Your task to perform on an android device: uninstall "Google Duo" Image 0: 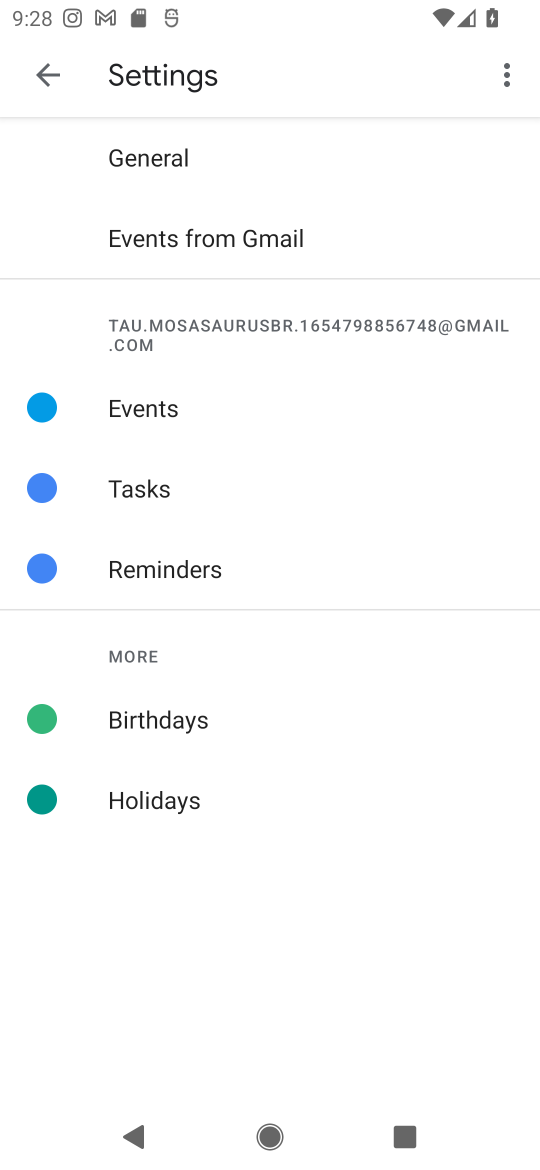
Step 0: press home button
Your task to perform on an android device: uninstall "Google Duo" Image 1: 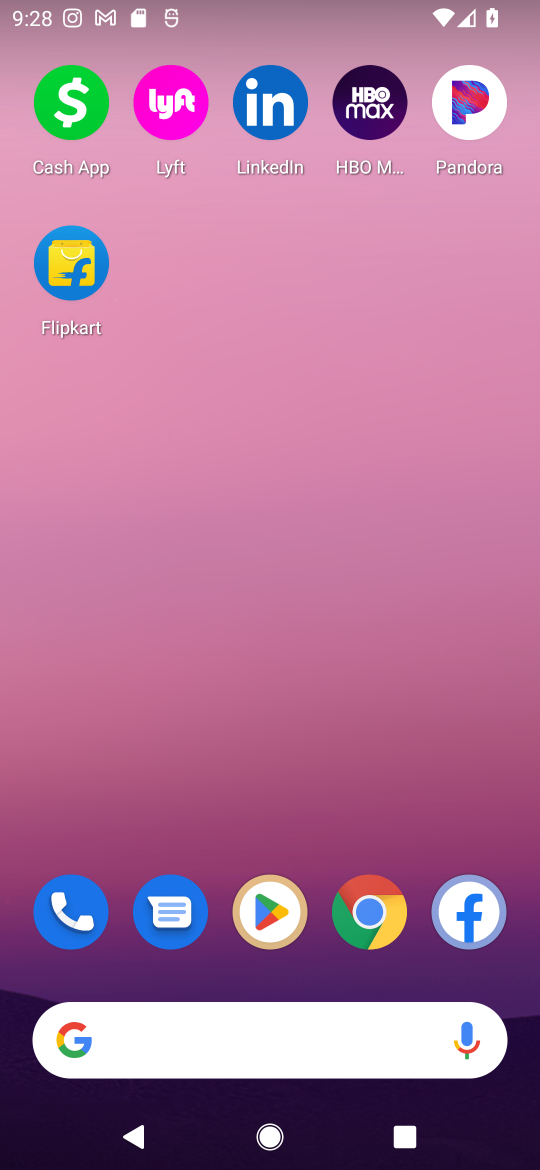
Step 1: click (273, 930)
Your task to perform on an android device: uninstall "Google Duo" Image 2: 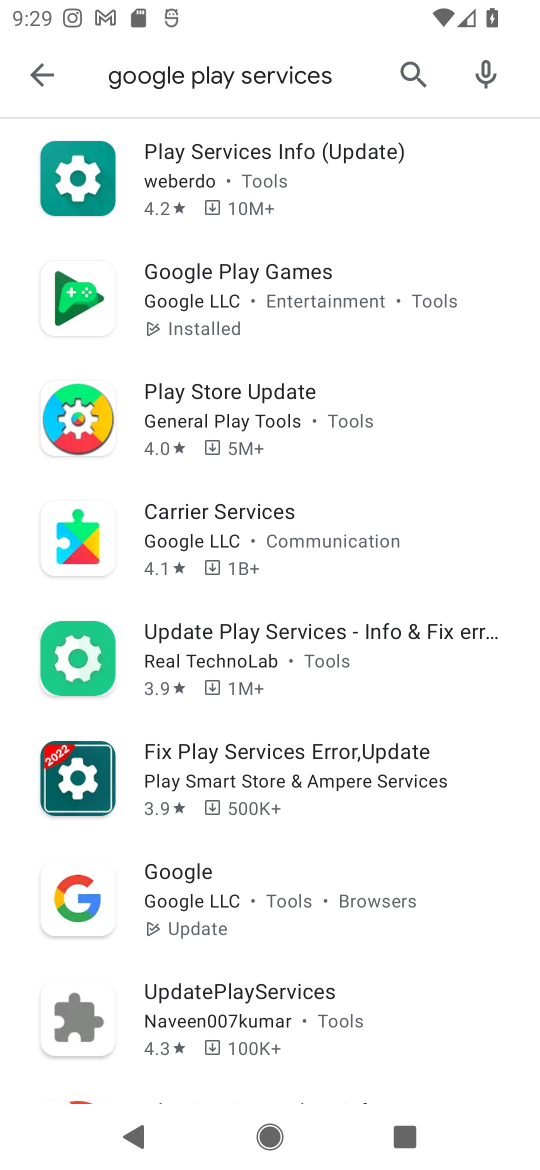
Step 2: click (410, 72)
Your task to perform on an android device: uninstall "Google Duo" Image 3: 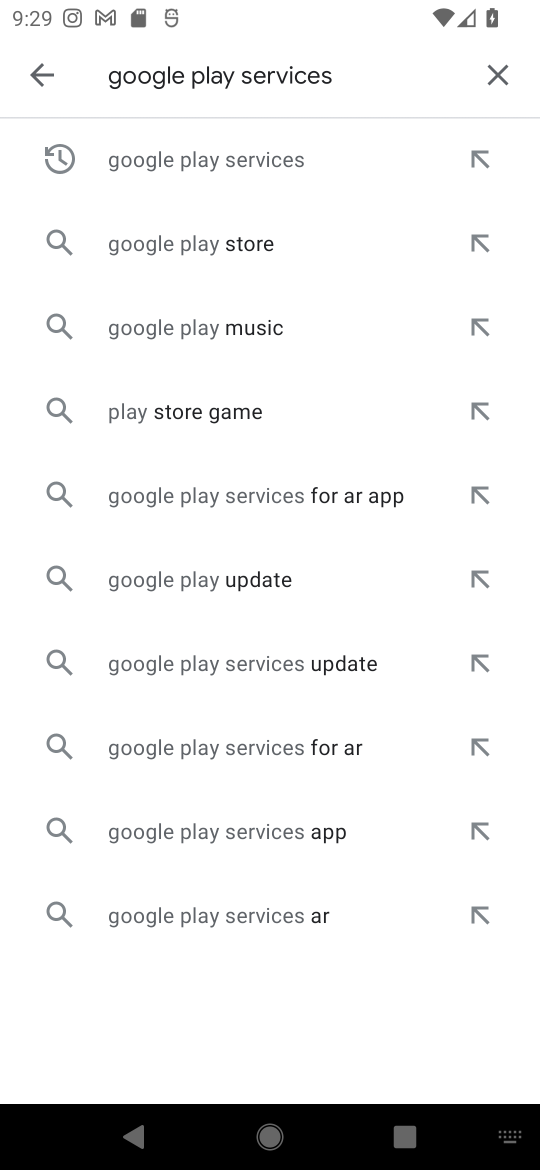
Step 3: click (499, 77)
Your task to perform on an android device: uninstall "Google Duo" Image 4: 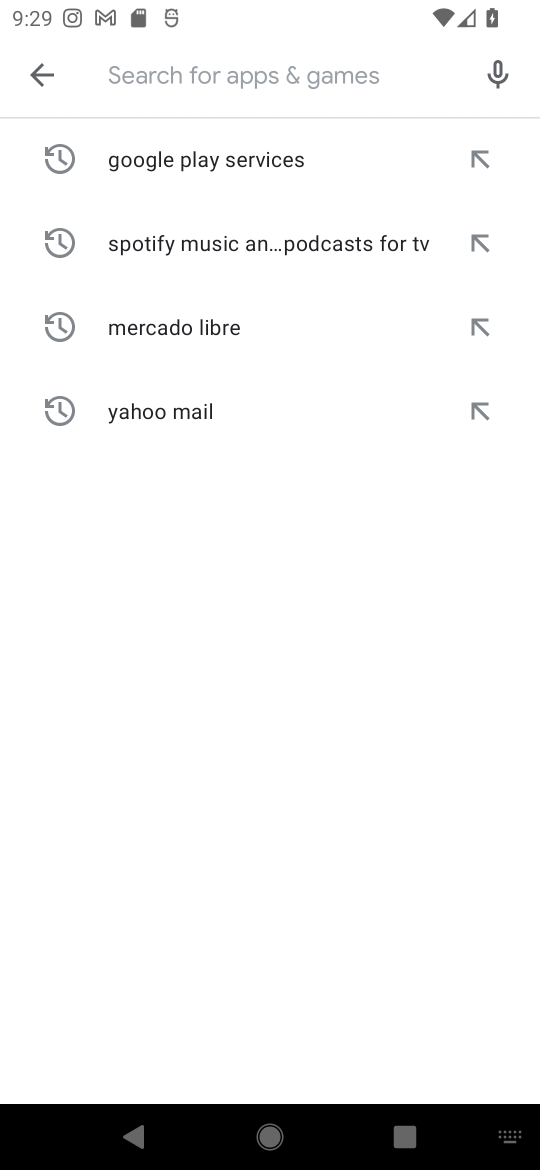
Step 4: type "Google Duo"
Your task to perform on an android device: uninstall "Google Duo" Image 5: 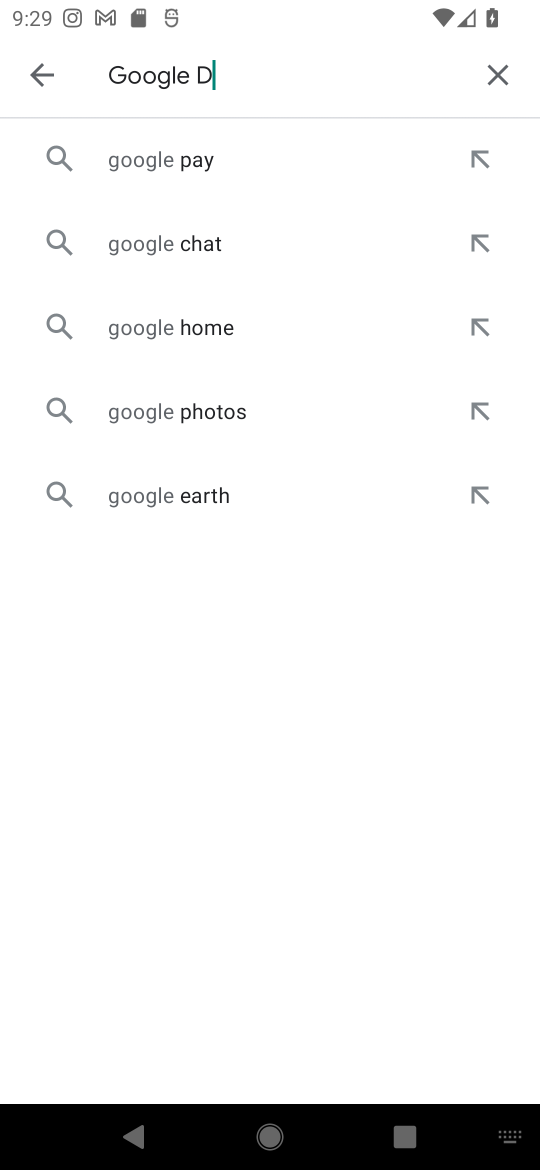
Step 5: type ""
Your task to perform on an android device: uninstall "Google Duo" Image 6: 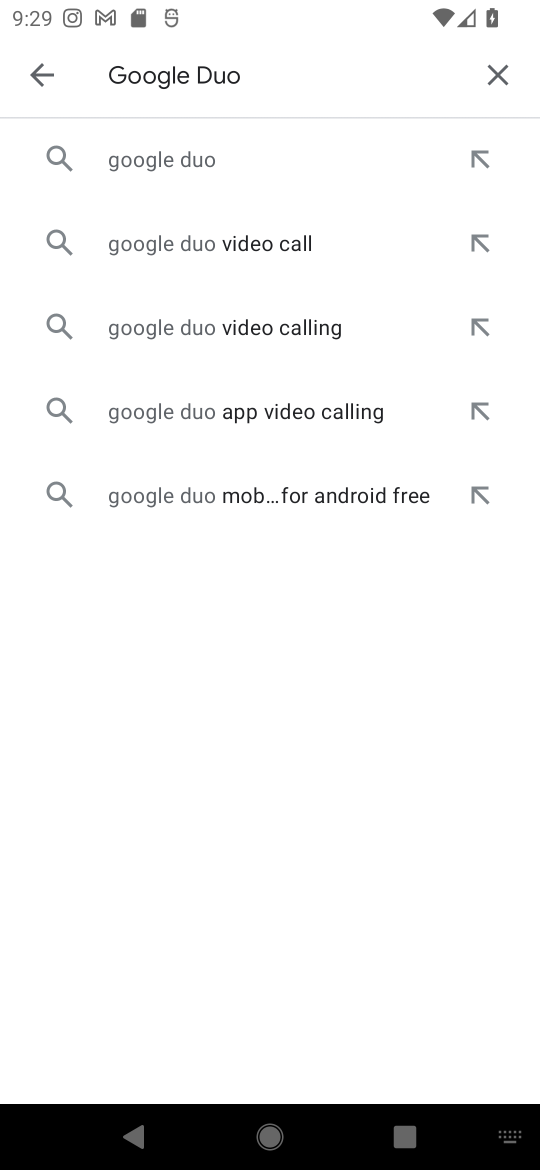
Step 6: click (185, 163)
Your task to perform on an android device: uninstall "Google Duo" Image 7: 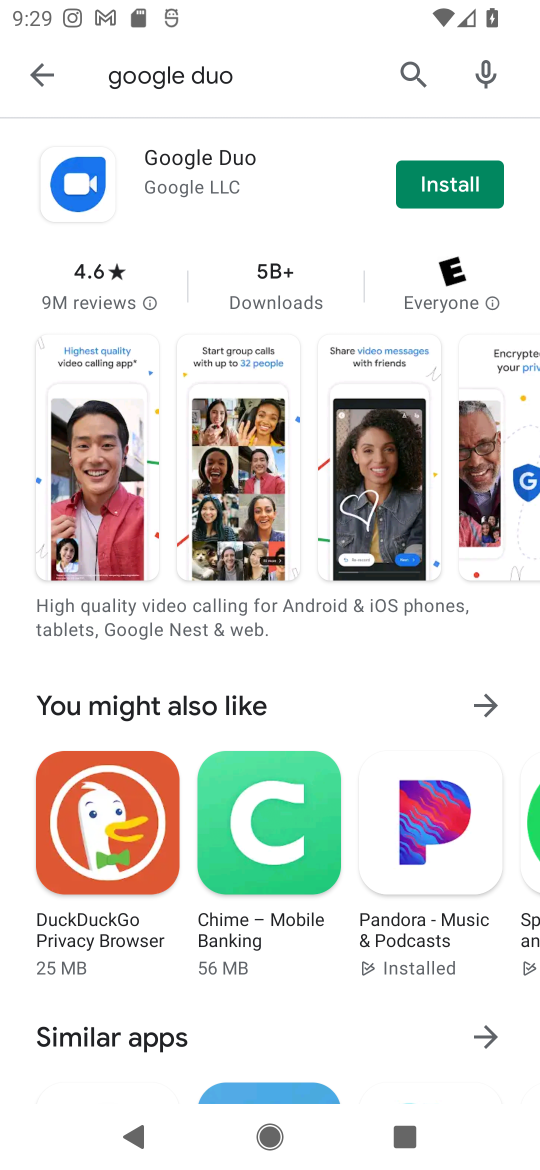
Step 7: click (225, 164)
Your task to perform on an android device: uninstall "Google Duo" Image 8: 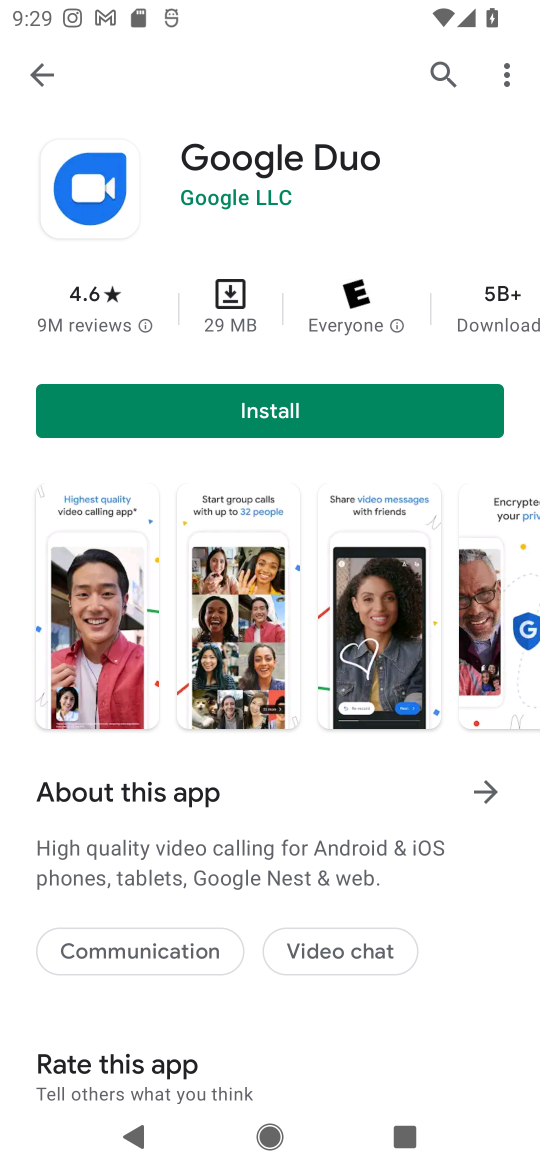
Step 8: task complete